Your task to perform on an android device: check data usage Image 0: 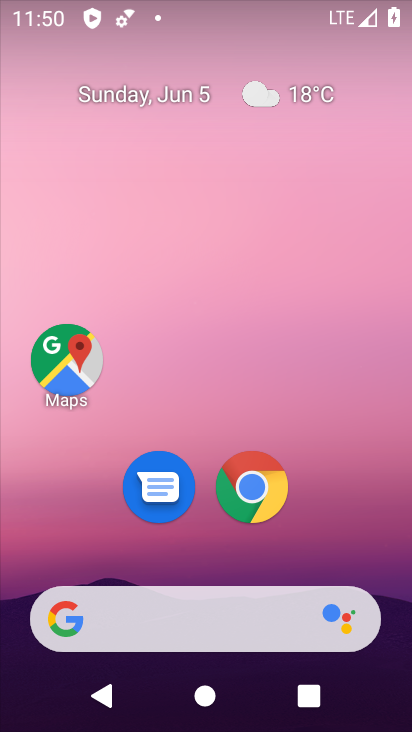
Step 0: drag from (363, 529) to (364, 124)
Your task to perform on an android device: check data usage Image 1: 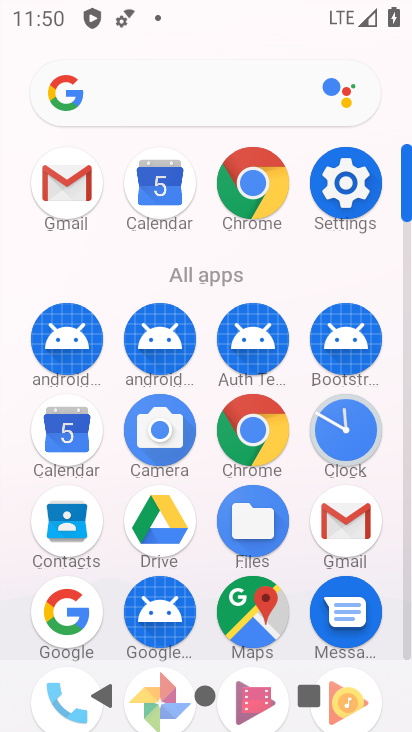
Step 1: click (370, 197)
Your task to perform on an android device: check data usage Image 2: 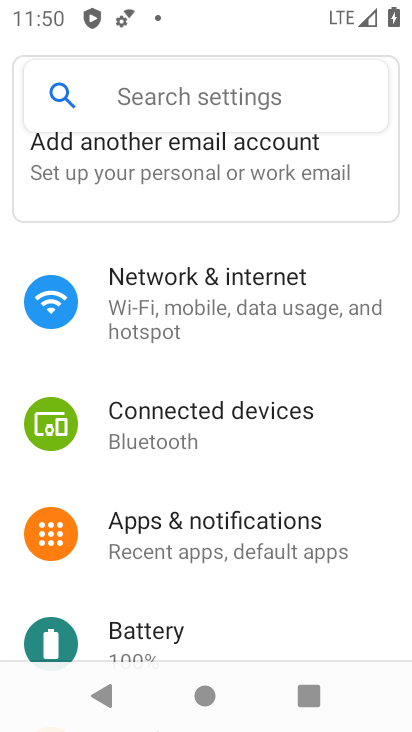
Step 2: drag from (214, 602) to (275, 286)
Your task to perform on an android device: check data usage Image 3: 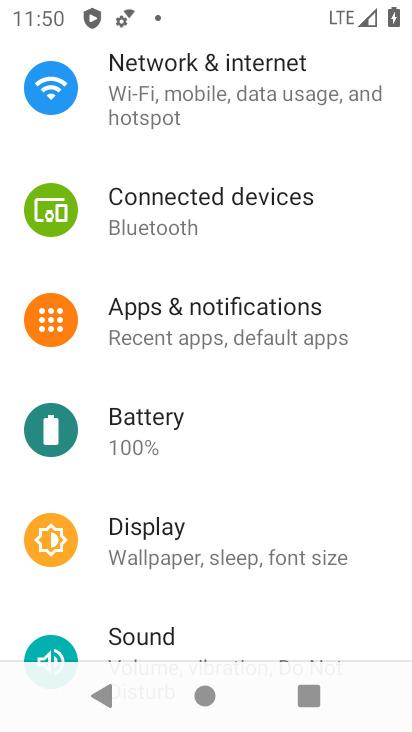
Step 3: drag from (288, 186) to (236, 554)
Your task to perform on an android device: check data usage Image 4: 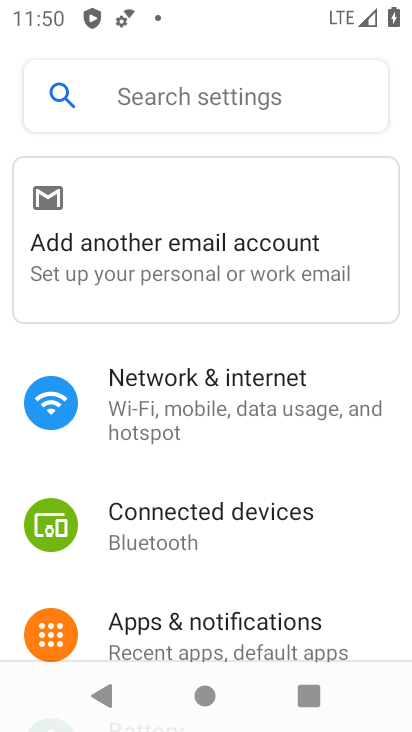
Step 4: click (169, 408)
Your task to perform on an android device: check data usage Image 5: 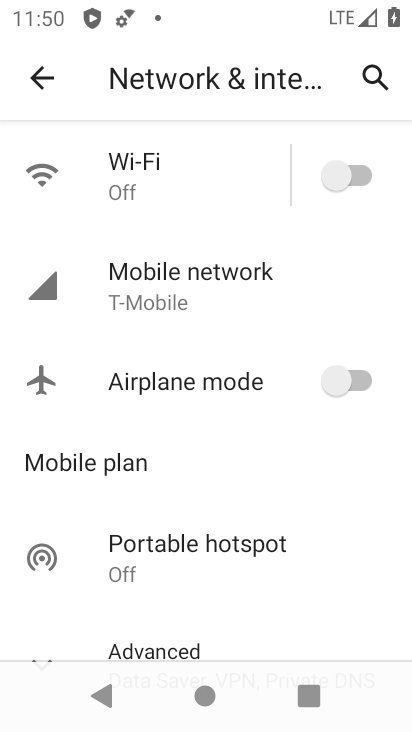
Step 5: click (217, 278)
Your task to perform on an android device: check data usage Image 6: 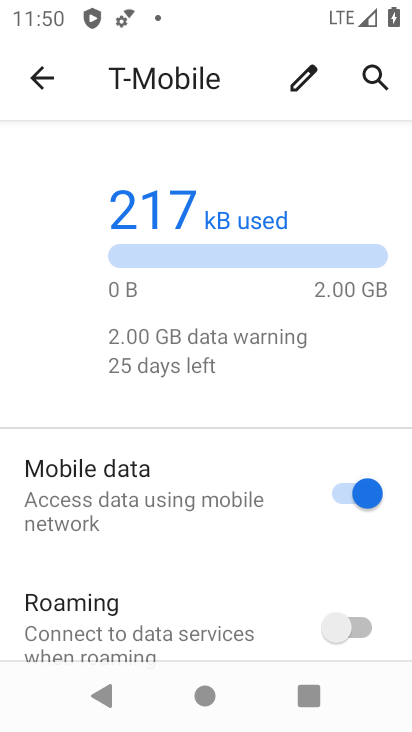
Step 6: task complete